Your task to perform on an android device: Open calendar and show me the fourth week of next month Image 0: 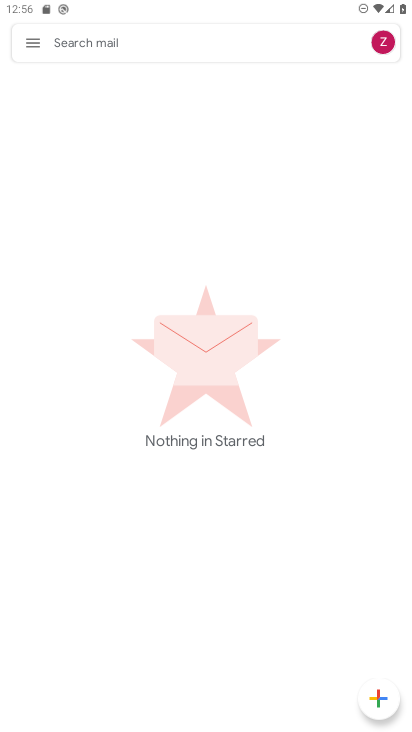
Step 0: press home button
Your task to perform on an android device: Open calendar and show me the fourth week of next month Image 1: 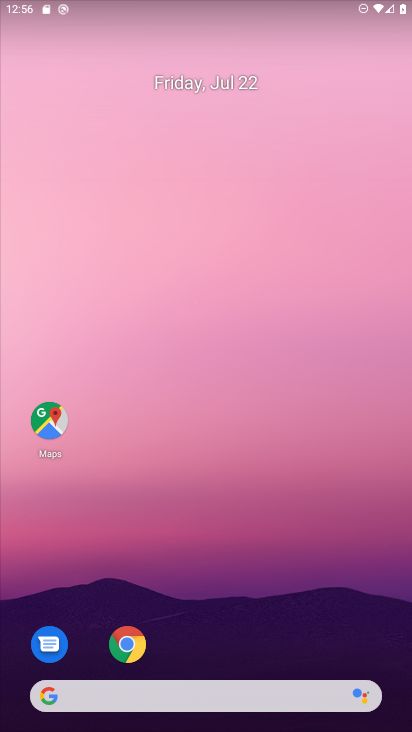
Step 1: click (188, 86)
Your task to perform on an android device: Open calendar and show me the fourth week of next month Image 2: 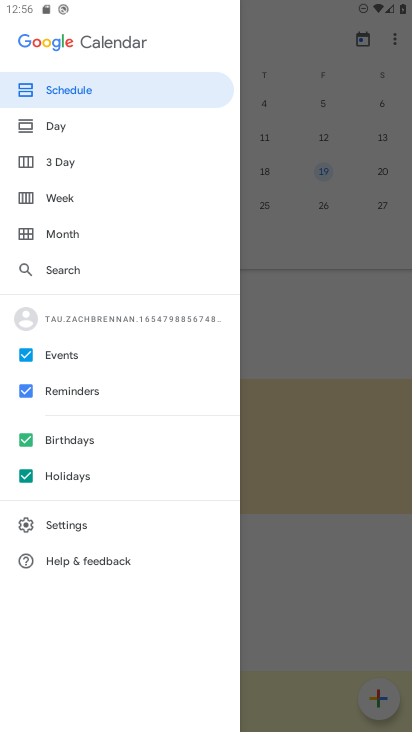
Step 2: click (345, 264)
Your task to perform on an android device: Open calendar and show me the fourth week of next month Image 3: 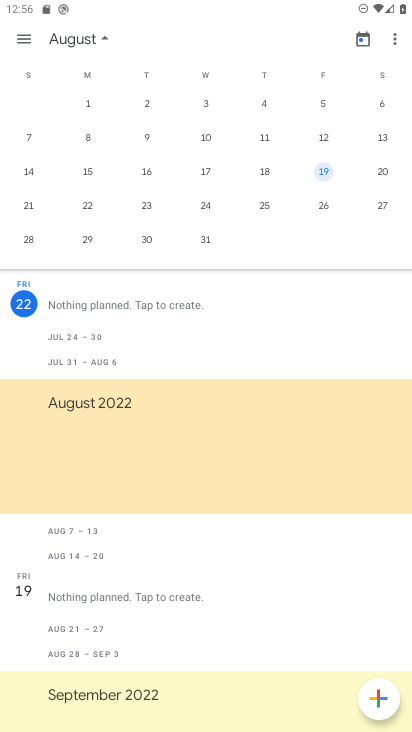
Step 3: click (328, 204)
Your task to perform on an android device: Open calendar and show me the fourth week of next month Image 4: 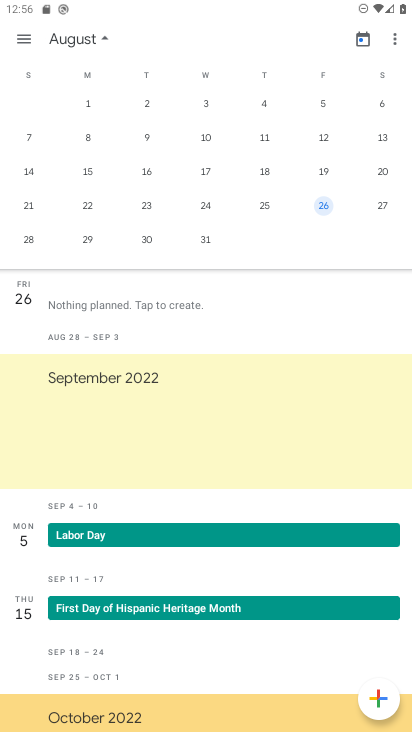
Step 4: task complete